Your task to perform on an android device: Open Youtube and go to "Your channel" Image 0: 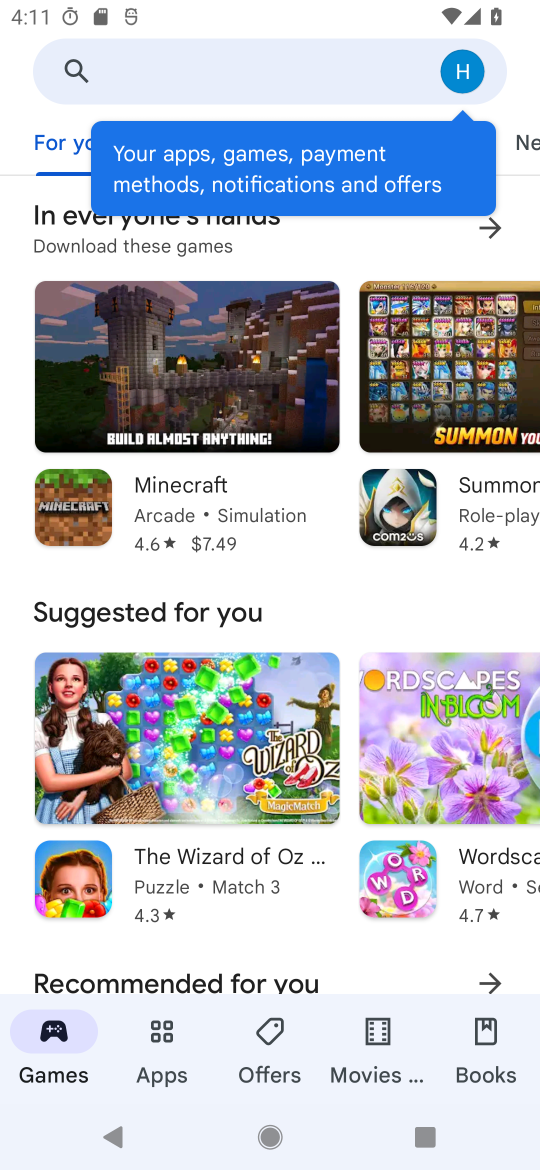
Step 0: press home button
Your task to perform on an android device: Open Youtube and go to "Your channel" Image 1: 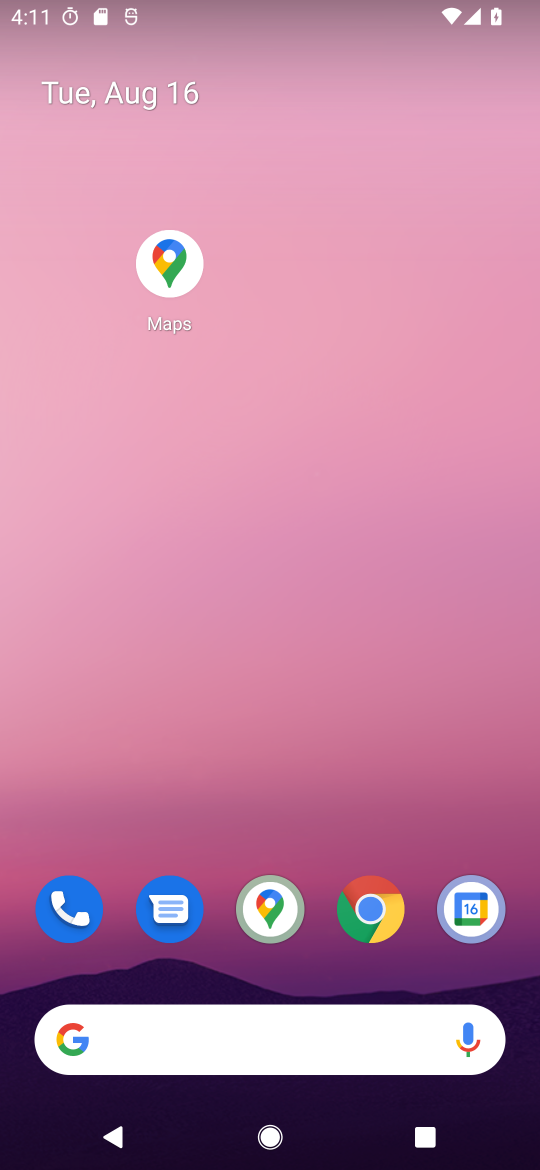
Step 1: drag from (274, 510) to (355, 66)
Your task to perform on an android device: Open Youtube and go to "Your channel" Image 2: 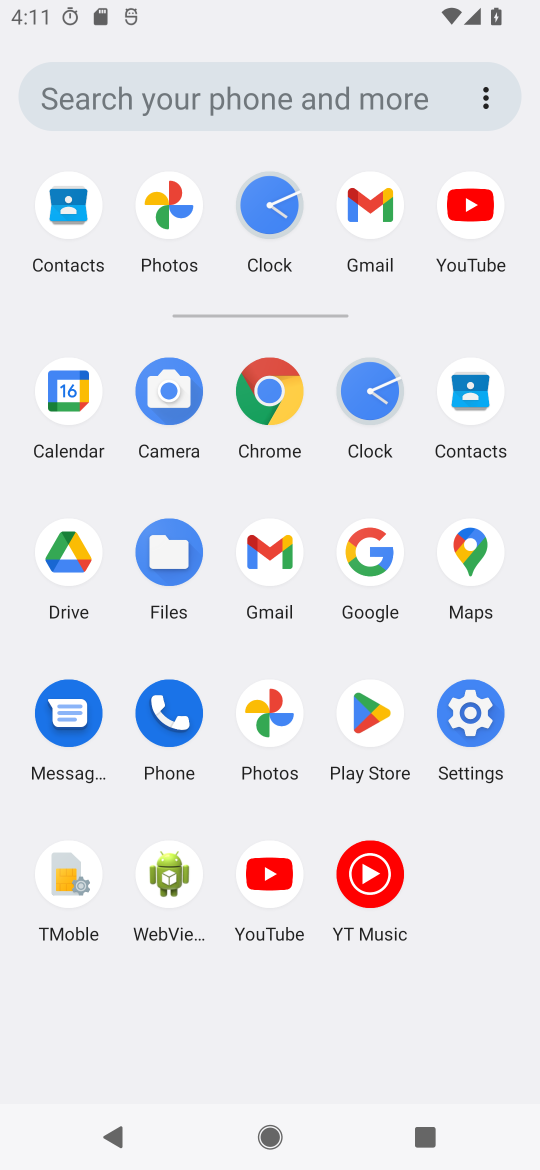
Step 2: click (264, 954)
Your task to perform on an android device: Open Youtube and go to "Your channel" Image 3: 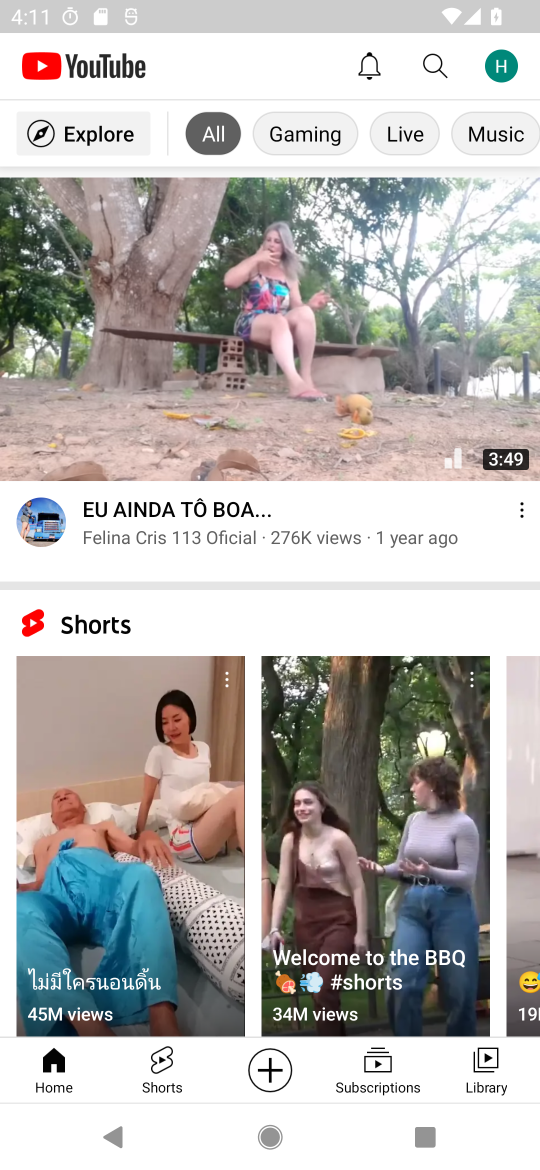
Step 3: click (491, 75)
Your task to perform on an android device: Open Youtube and go to "Your channel" Image 4: 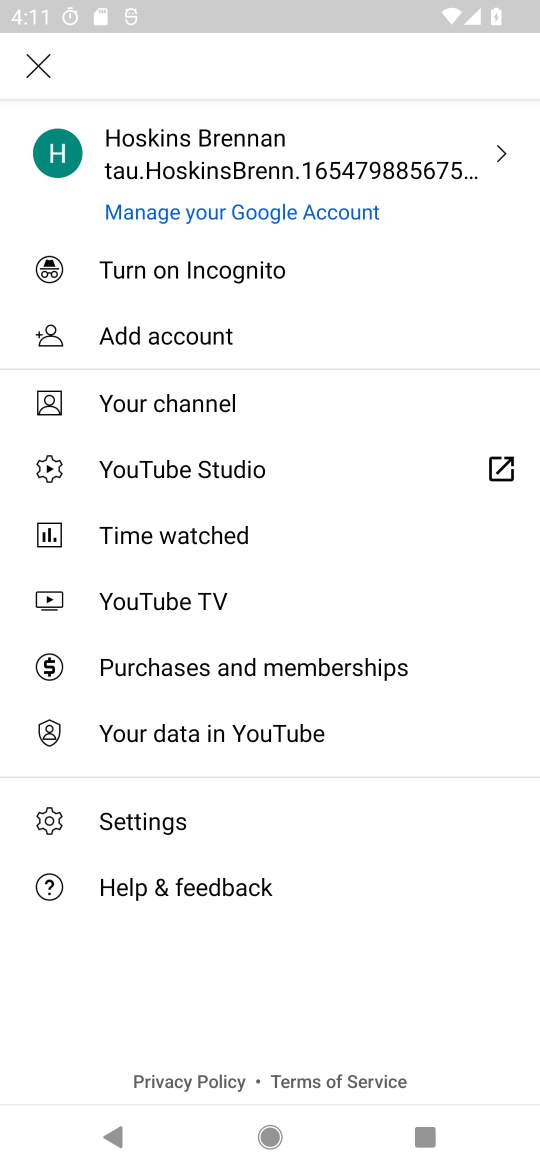
Step 4: click (193, 406)
Your task to perform on an android device: Open Youtube and go to "Your channel" Image 5: 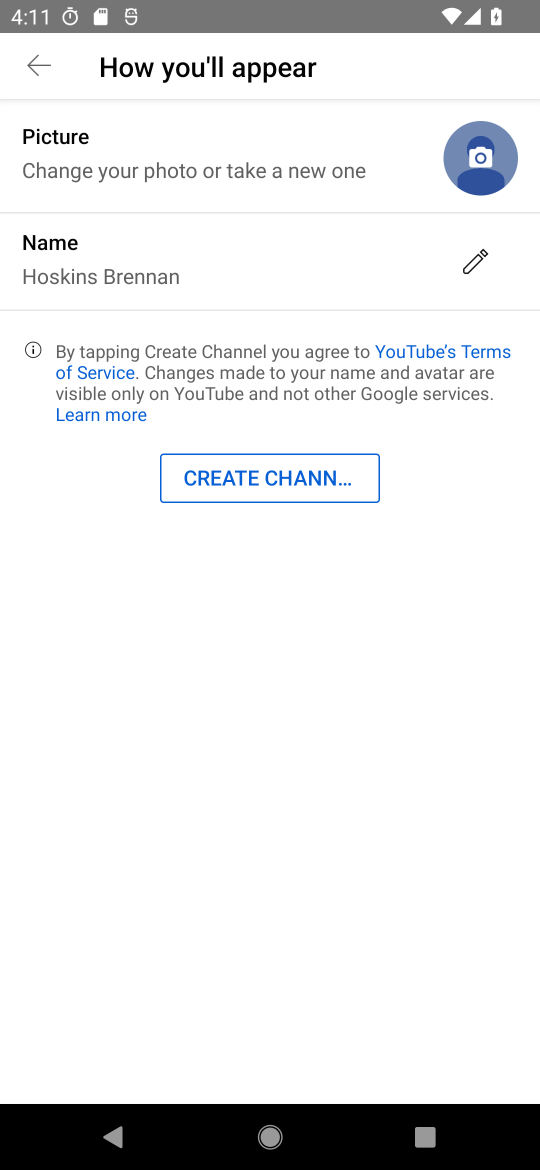
Step 5: task complete